Your task to perform on an android device: Open display settings Image 0: 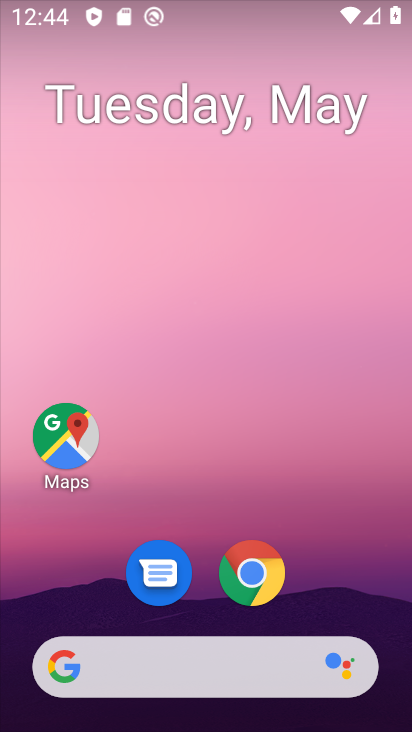
Step 0: drag from (309, 418) to (279, 185)
Your task to perform on an android device: Open display settings Image 1: 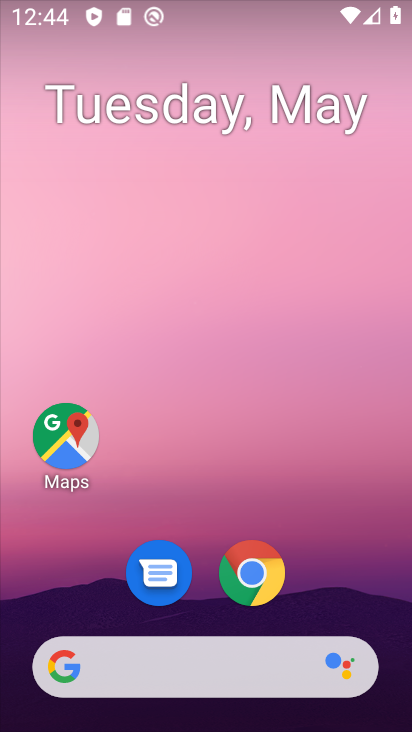
Step 1: drag from (336, 527) to (256, 69)
Your task to perform on an android device: Open display settings Image 2: 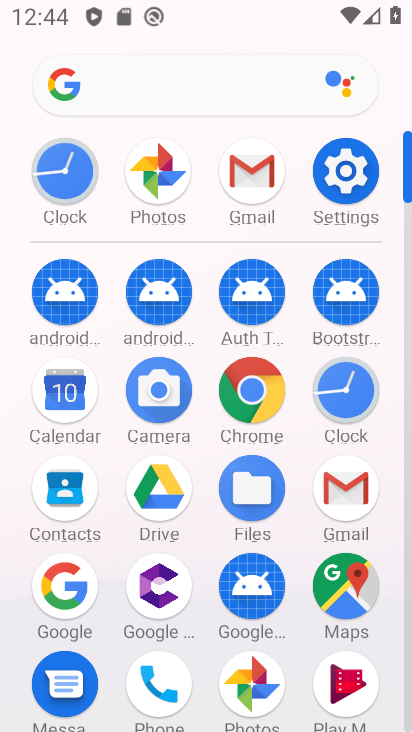
Step 2: click (317, 181)
Your task to perform on an android device: Open display settings Image 3: 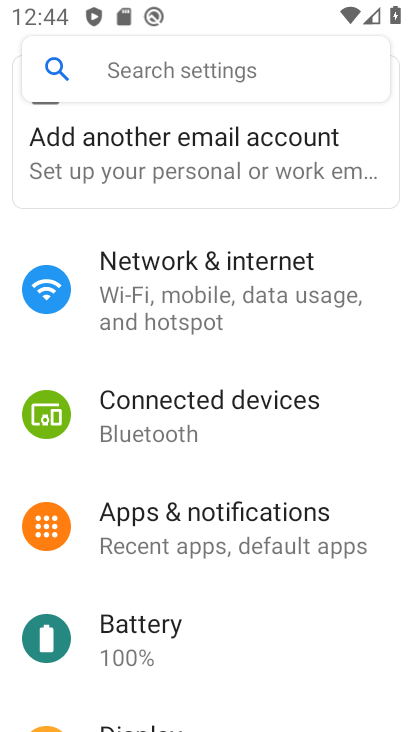
Step 3: drag from (271, 618) to (229, 272)
Your task to perform on an android device: Open display settings Image 4: 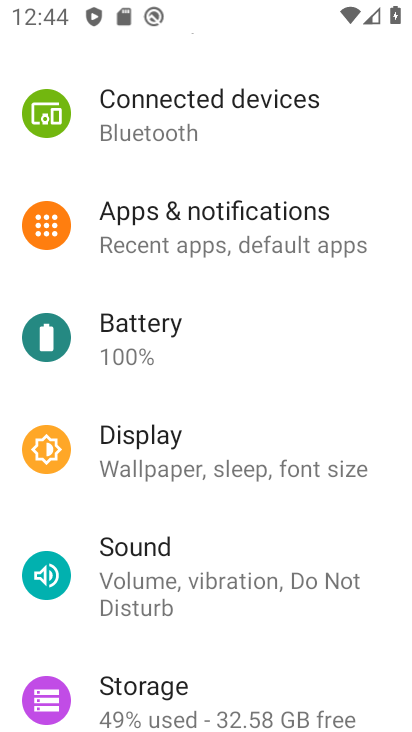
Step 4: click (198, 450)
Your task to perform on an android device: Open display settings Image 5: 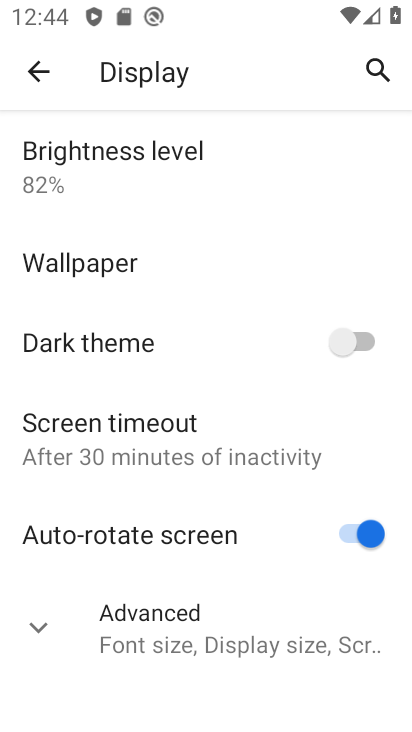
Step 5: task complete